Your task to perform on an android device: Open the calendar app, open the side menu, and click the "Day" option Image 0: 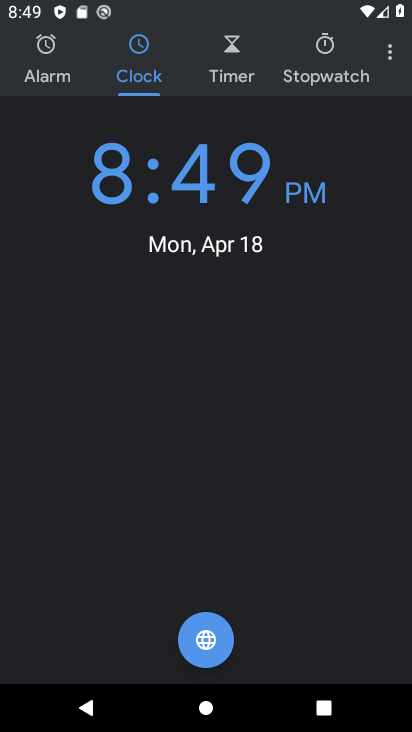
Step 0: press home button
Your task to perform on an android device: Open the calendar app, open the side menu, and click the "Day" option Image 1: 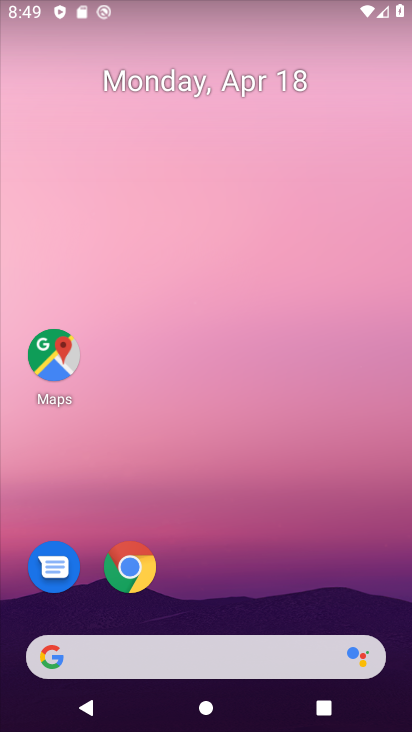
Step 1: drag from (178, 436) to (213, 46)
Your task to perform on an android device: Open the calendar app, open the side menu, and click the "Day" option Image 2: 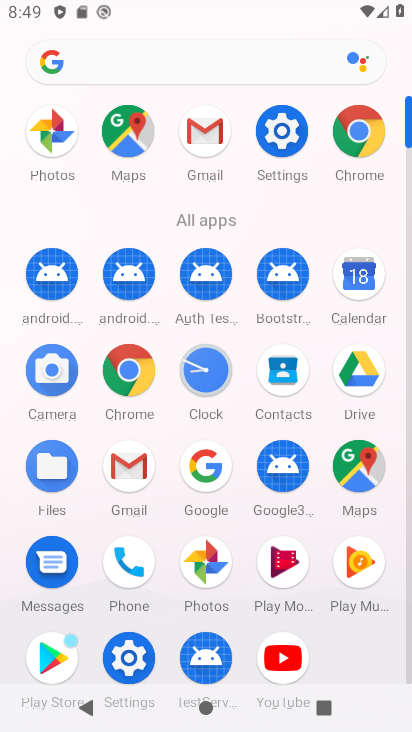
Step 2: click (362, 294)
Your task to perform on an android device: Open the calendar app, open the side menu, and click the "Day" option Image 3: 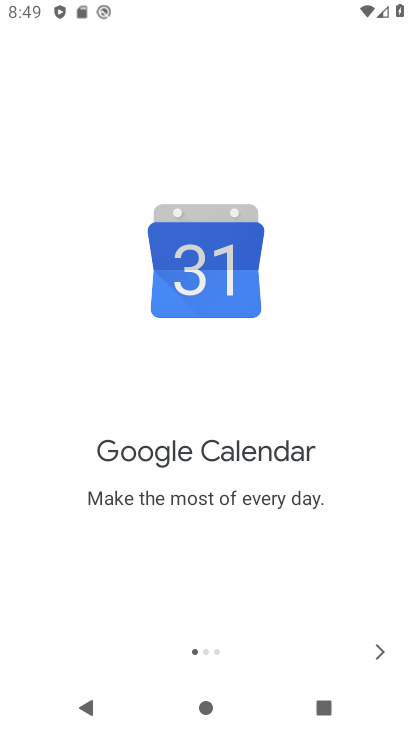
Step 3: click (383, 651)
Your task to perform on an android device: Open the calendar app, open the side menu, and click the "Day" option Image 4: 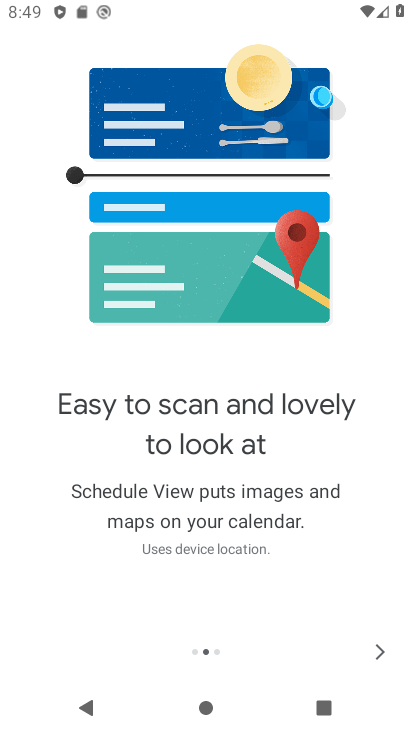
Step 4: click (383, 651)
Your task to perform on an android device: Open the calendar app, open the side menu, and click the "Day" option Image 5: 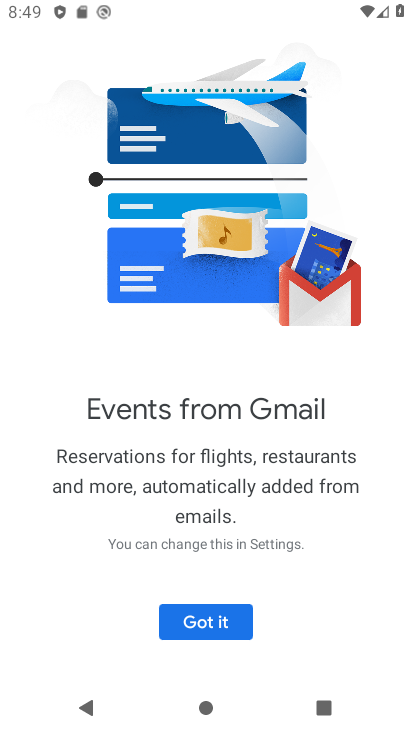
Step 5: click (211, 621)
Your task to perform on an android device: Open the calendar app, open the side menu, and click the "Day" option Image 6: 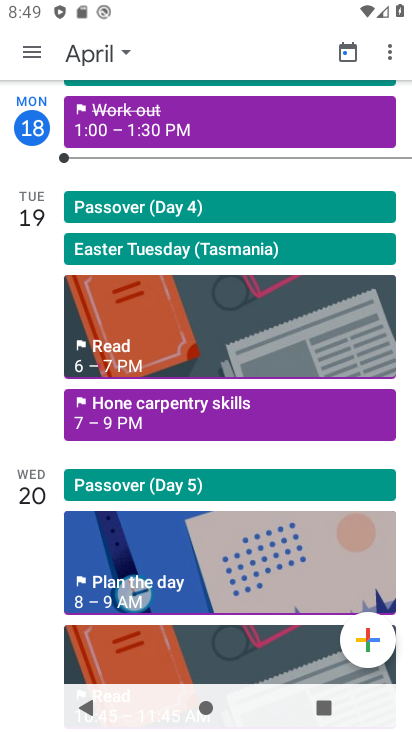
Step 6: click (22, 47)
Your task to perform on an android device: Open the calendar app, open the side menu, and click the "Day" option Image 7: 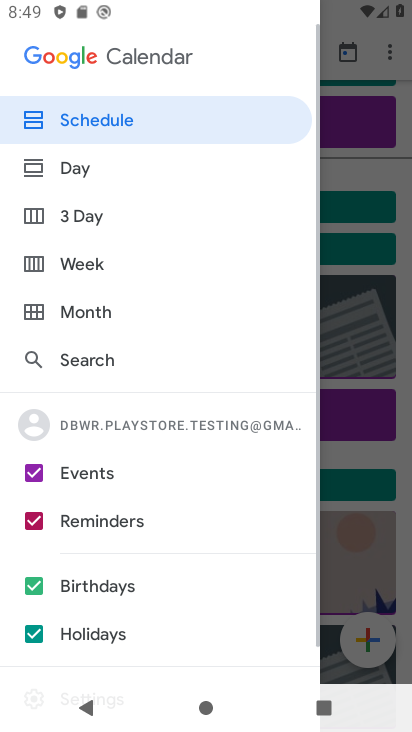
Step 7: click (119, 166)
Your task to perform on an android device: Open the calendar app, open the side menu, and click the "Day" option Image 8: 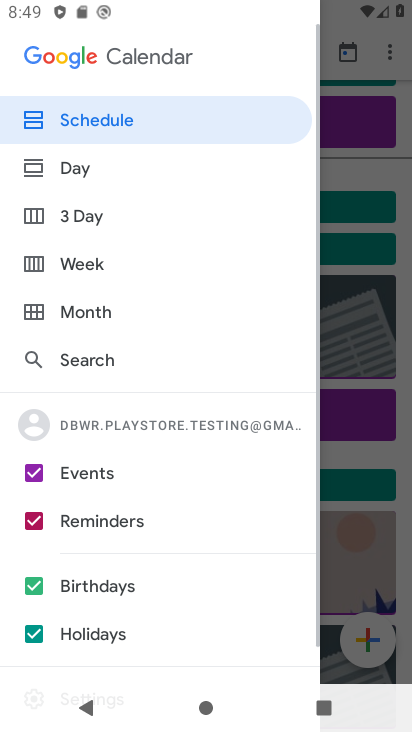
Step 8: click (89, 165)
Your task to perform on an android device: Open the calendar app, open the side menu, and click the "Day" option Image 9: 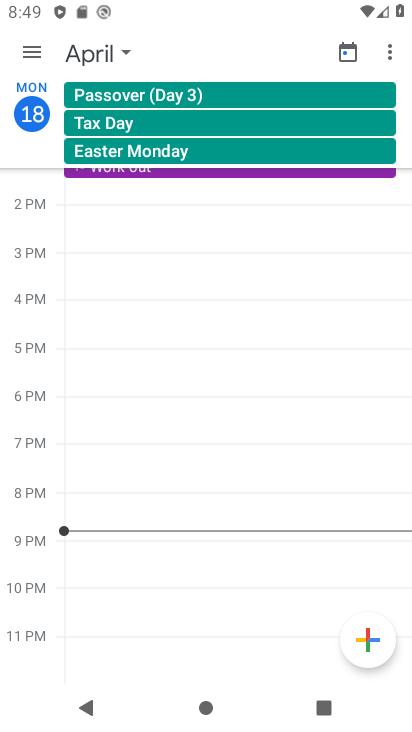
Step 9: task complete